Your task to perform on an android device: toggle location history Image 0: 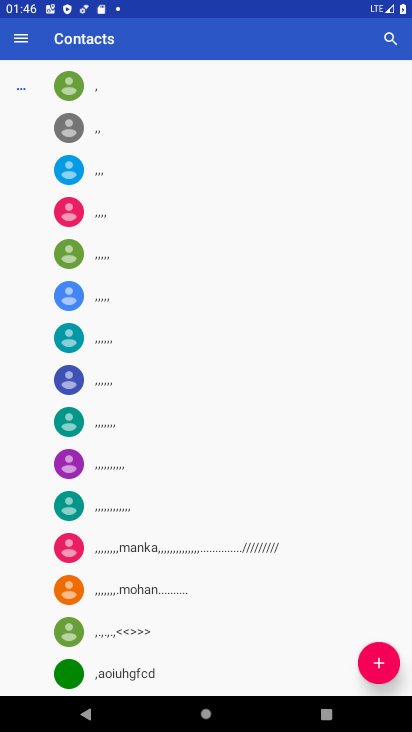
Step 0: press home button
Your task to perform on an android device: toggle location history Image 1: 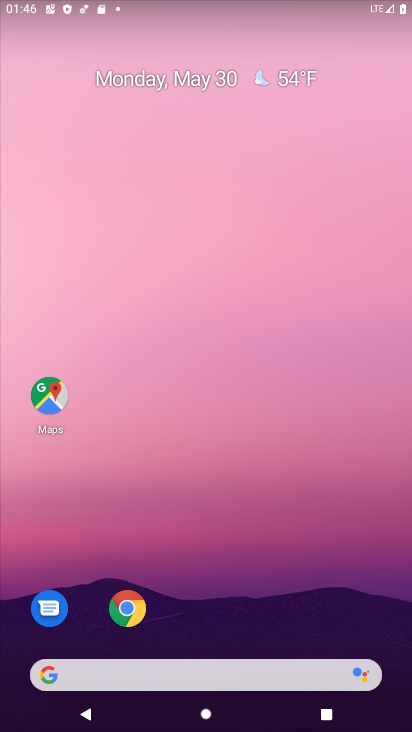
Step 1: drag from (235, 578) to (212, 162)
Your task to perform on an android device: toggle location history Image 2: 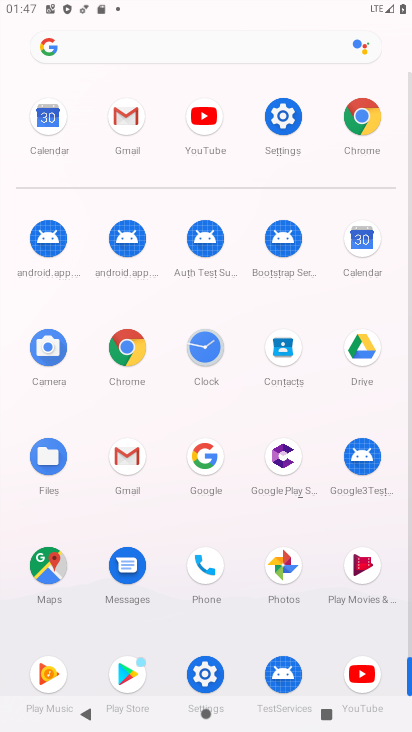
Step 2: click (291, 109)
Your task to perform on an android device: toggle location history Image 3: 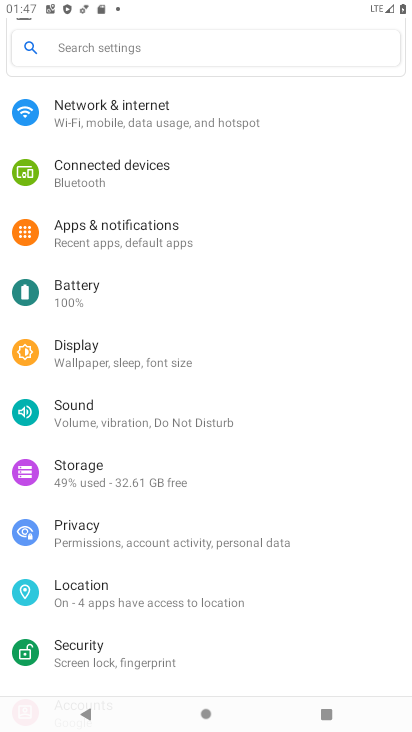
Step 3: click (85, 591)
Your task to perform on an android device: toggle location history Image 4: 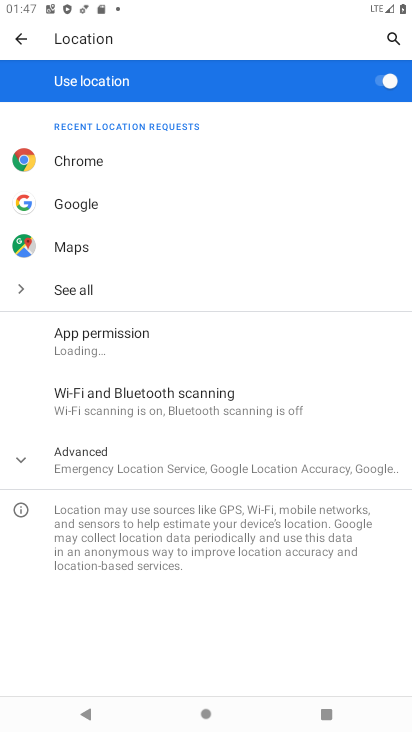
Step 4: click (371, 68)
Your task to perform on an android device: toggle location history Image 5: 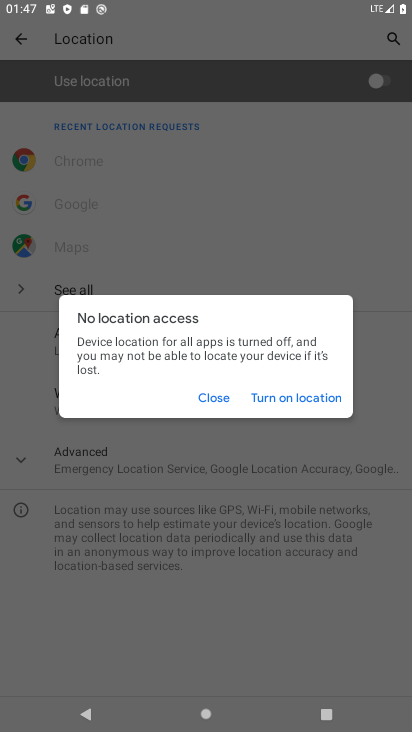
Step 5: task complete